Your task to perform on an android device: read, delete, or share a saved page in the chrome app Image 0: 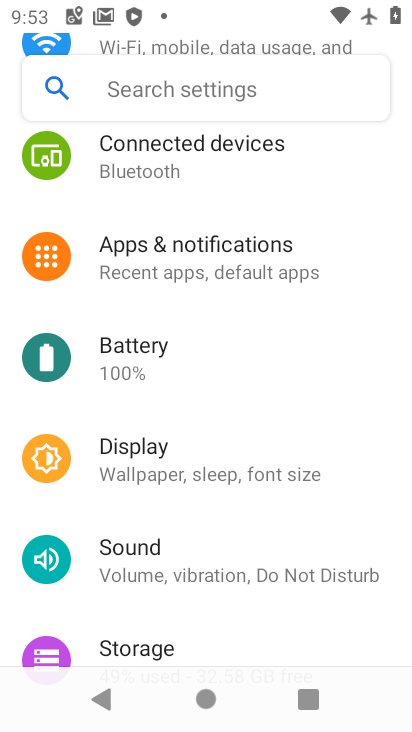
Step 0: task complete